Your task to perform on an android device: When is my next meeting? Image 0: 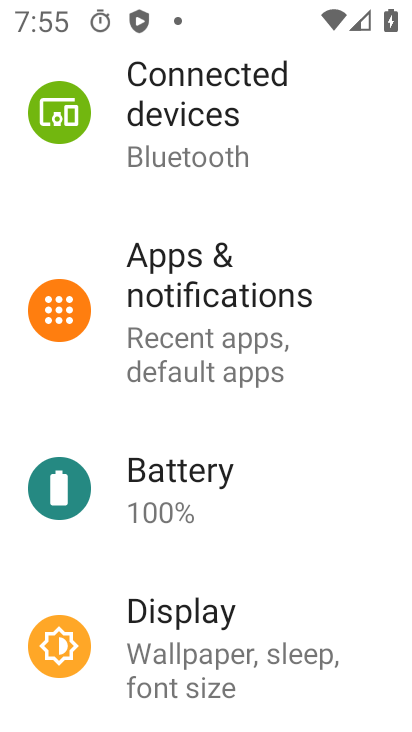
Step 0: press home button
Your task to perform on an android device: When is my next meeting? Image 1: 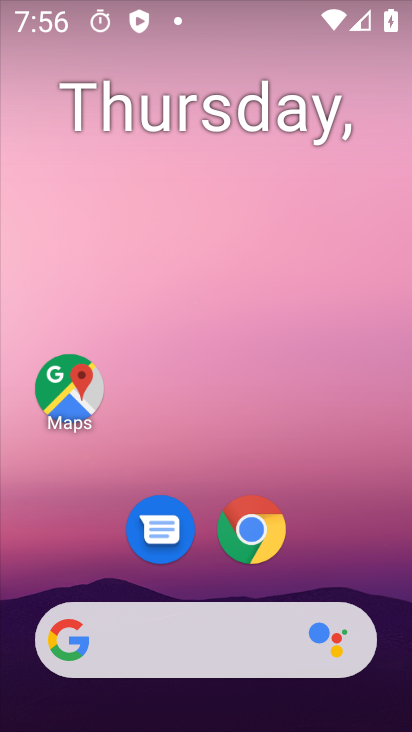
Step 1: drag from (399, 695) to (388, 274)
Your task to perform on an android device: When is my next meeting? Image 2: 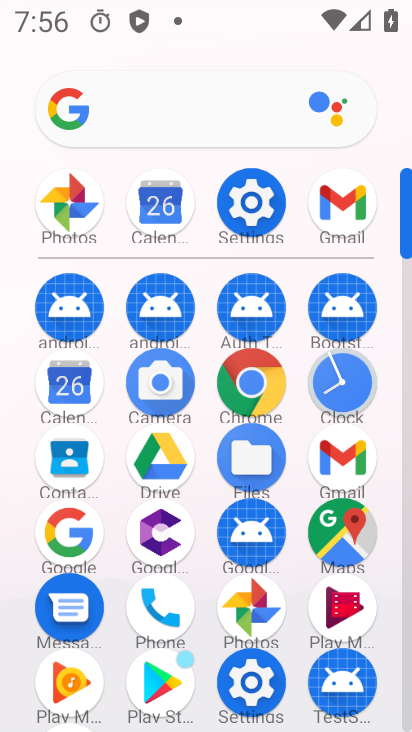
Step 2: click (239, 210)
Your task to perform on an android device: When is my next meeting? Image 3: 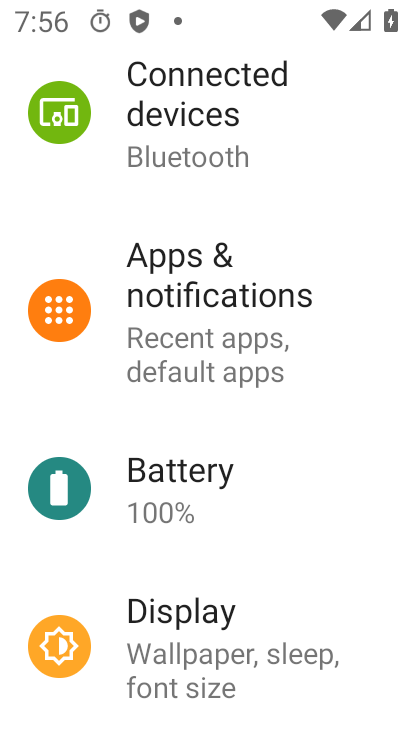
Step 3: press home button
Your task to perform on an android device: When is my next meeting? Image 4: 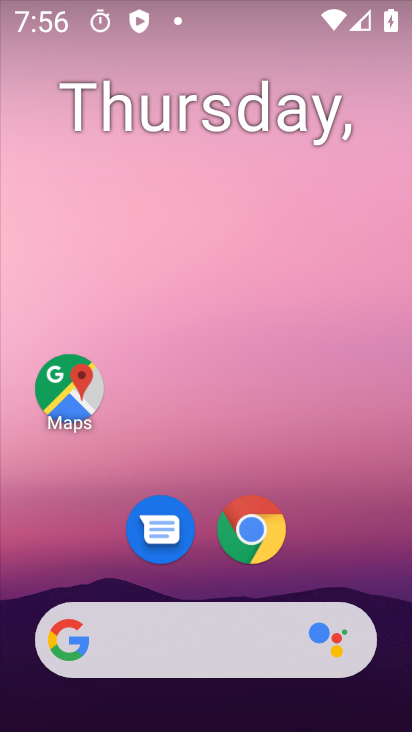
Step 4: drag from (374, 537) to (358, 204)
Your task to perform on an android device: When is my next meeting? Image 5: 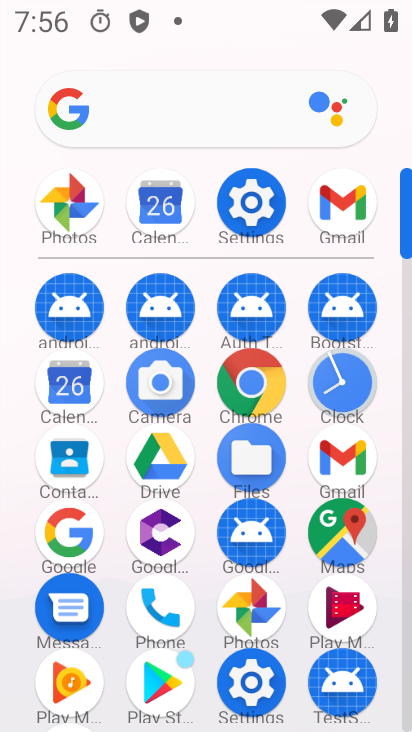
Step 5: click (77, 358)
Your task to perform on an android device: When is my next meeting? Image 6: 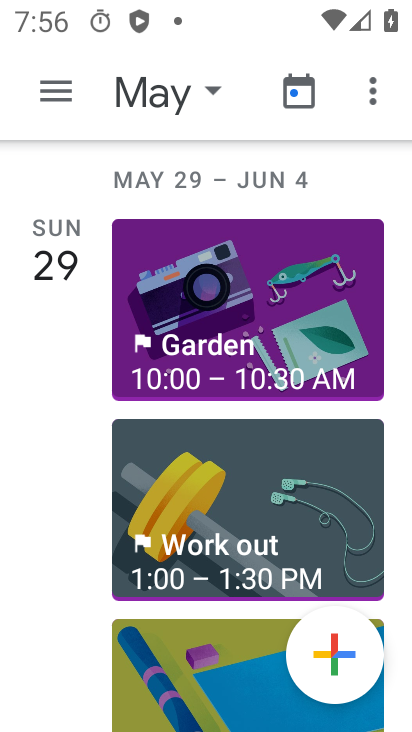
Step 6: click (55, 92)
Your task to perform on an android device: When is my next meeting? Image 7: 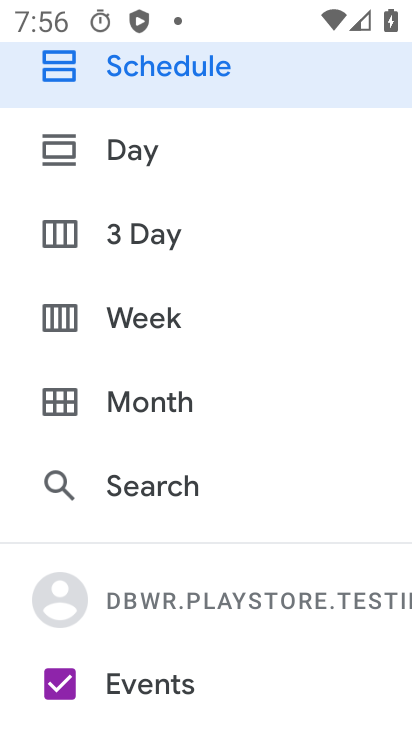
Step 7: drag from (350, 694) to (356, 346)
Your task to perform on an android device: When is my next meeting? Image 8: 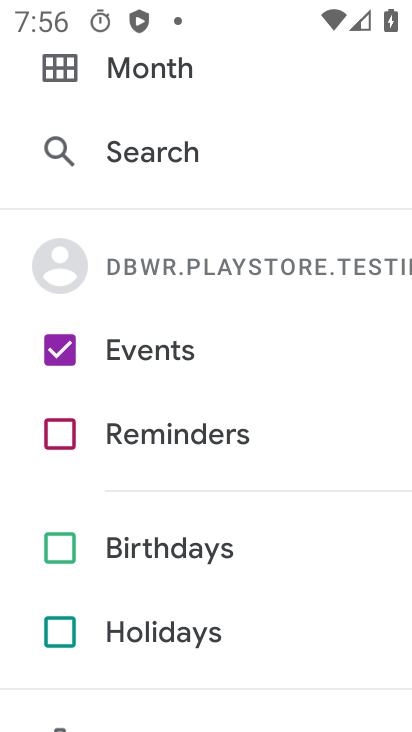
Step 8: drag from (361, 258) to (367, 598)
Your task to perform on an android device: When is my next meeting? Image 9: 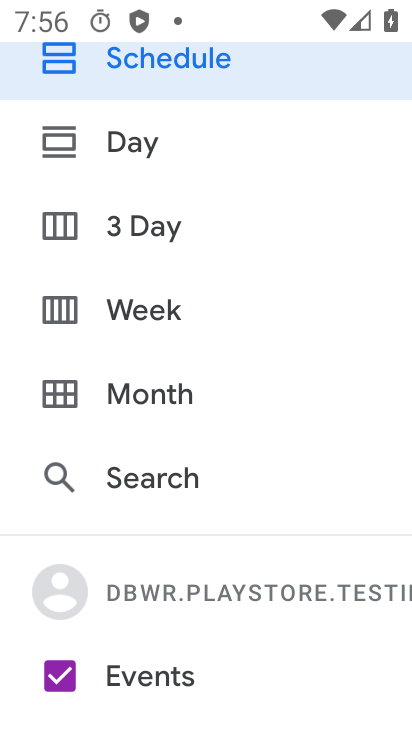
Step 9: click (191, 78)
Your task to perform on an android device: When is my next meeting? Image 10: 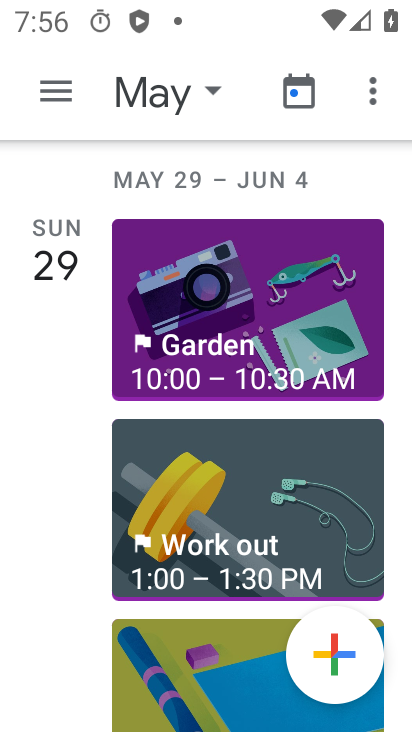
Step 10: task complete